Your task to perform on an android device: Is it going to rain this weekend? Image 0: 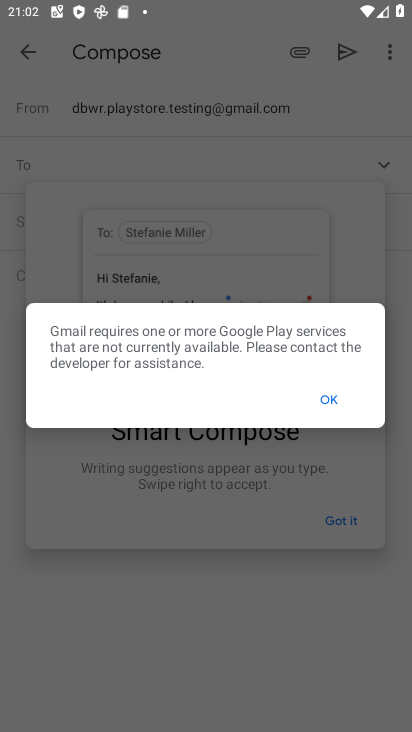
Step 0: press home button
Your task to perform on an android device: Is it going to rain this weekend? Image 1: 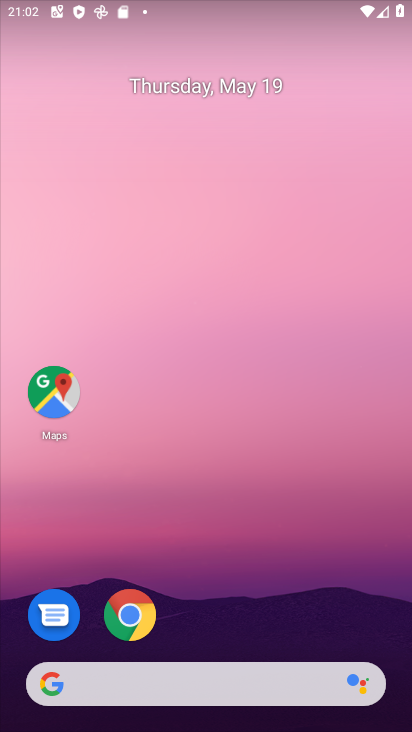
Step 1: drag from (261, 546) to (244, 32)
Your task to perform on an android device: Is it going to rain this weekend? Image 2: 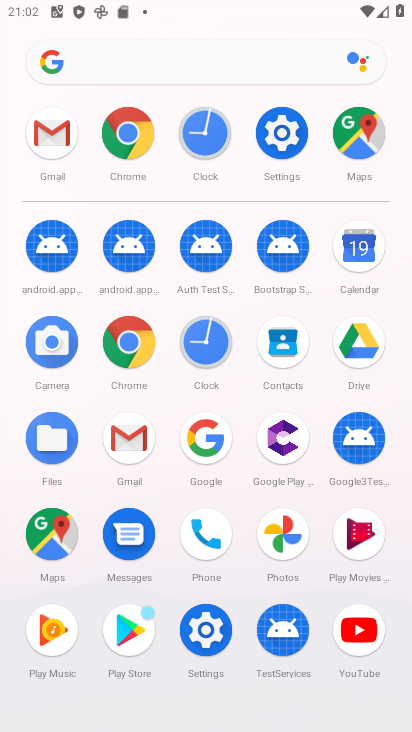
Step 2: click (195, 433)
Your task to perform on an android device: Is it going to rain this weekend? Image 3: 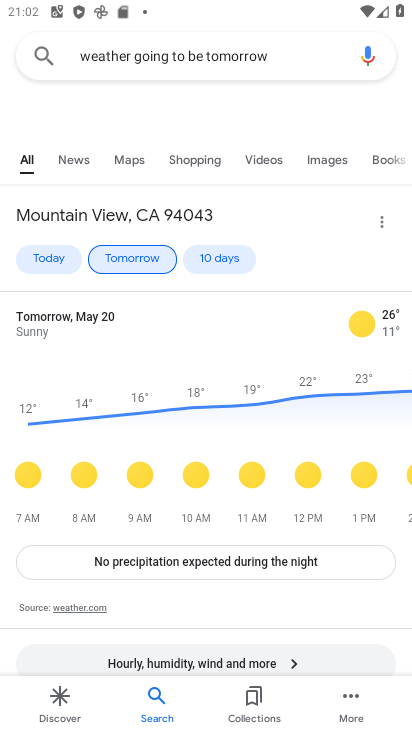
Step 3: click (283, 39)
Your task to perform on an android device: Is it going to rain this weekend? Image 4: 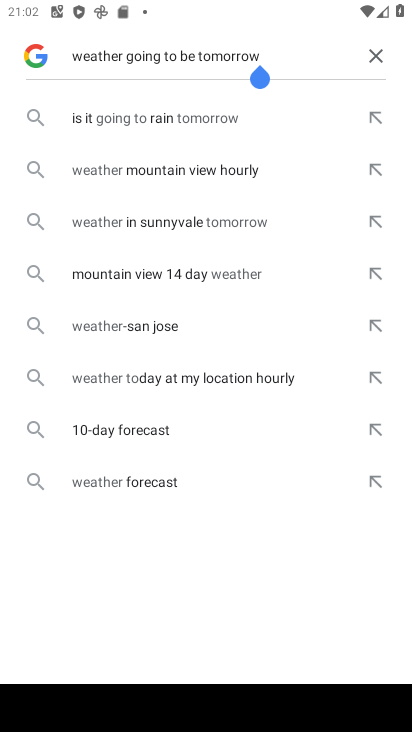
Step 4: click (377, 44)
Your task to perform on an android device: Is it going to rain this weekend? Image 5: 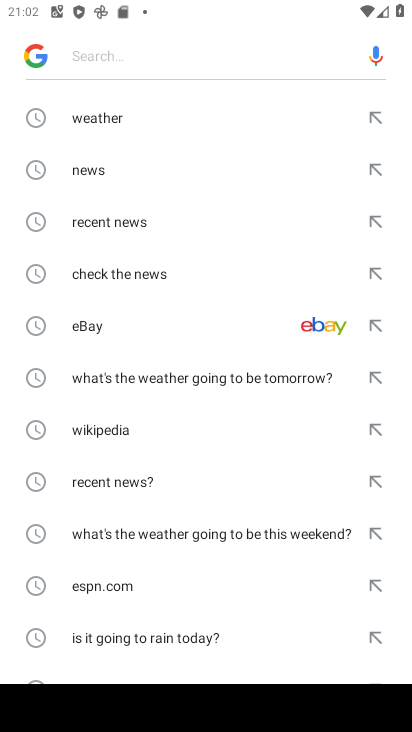
Step 5: click (148, 532)
Your task to perform on an android device: Is it going to rain this weekend? Image 6: 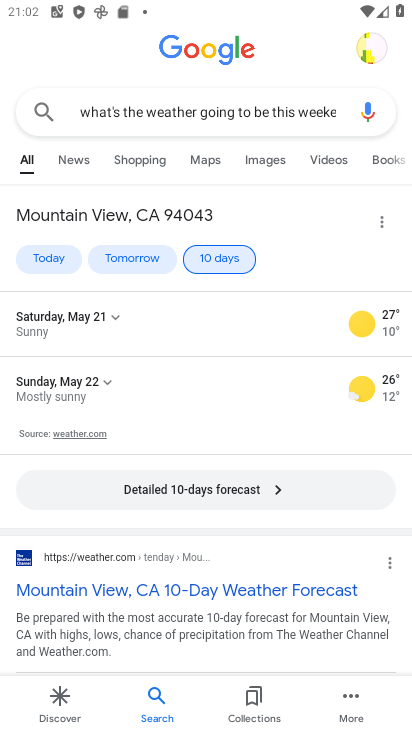
Step 6: task complete